Your task to perform on an android device: open app "Nova Launcher" (install if not already installed) Image 0: 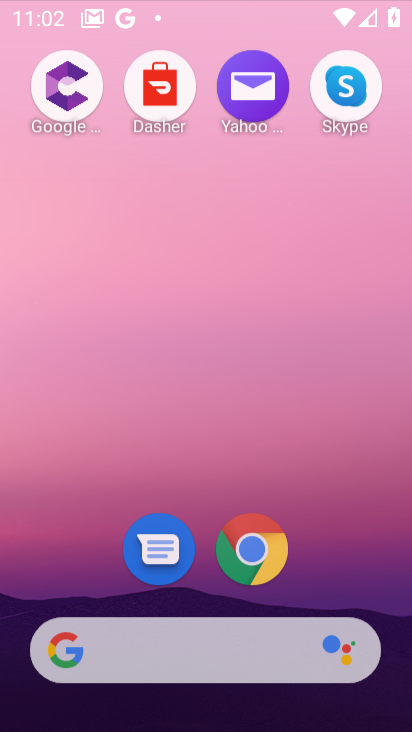
Step 0: click (137, 44)
Your task to perform on an android device: open app "Nova Launcher" (install if not already installed) Image 1: 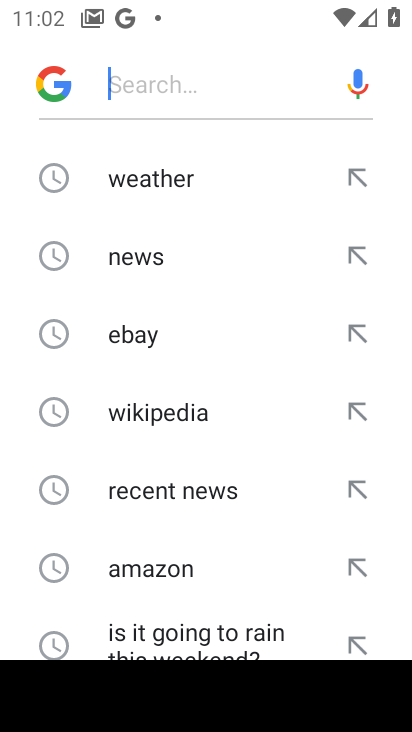
Step 1: press back button
Your task to perform on an android device: open app "Nova Launcher" (install if not already installed) Image 2: 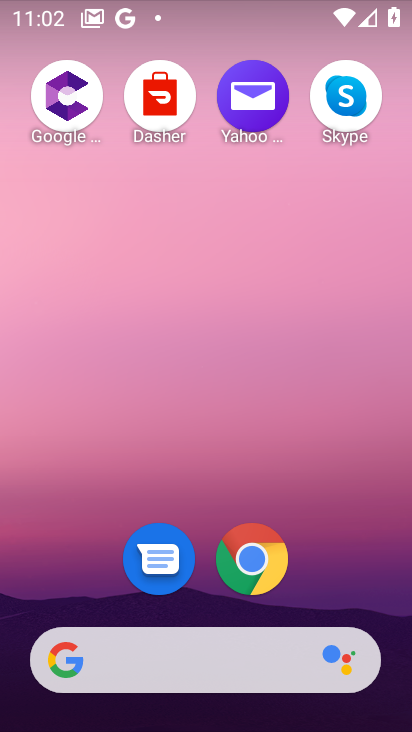
Step 2: drag from (78, 539) to (157, 10)
Your task to perform on an android device: open app "Nova Launcher" (install if not already installed) Image 3: 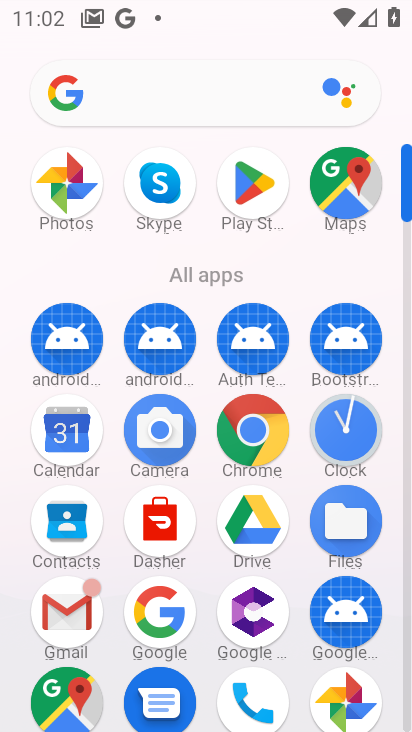
Step 3: click (261, 186)
Your task to perform on an android device: open app "Nova Launcher" (install if not already installed) Image 4: 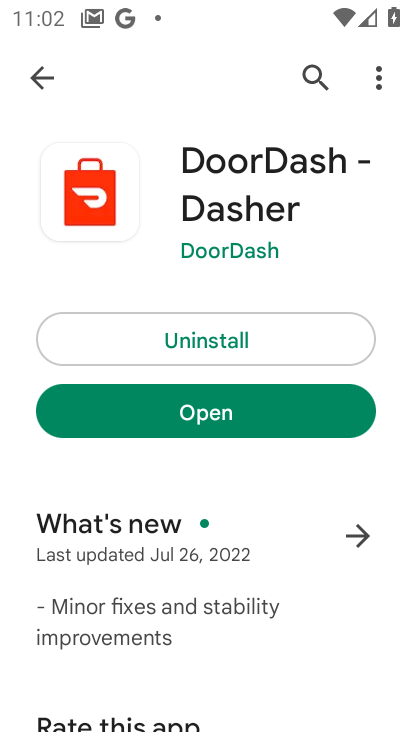
Step 4: click (306, 65)
Your task to perform on an android device: open app "Nova Launcher" (install if not already installed) Image 5: 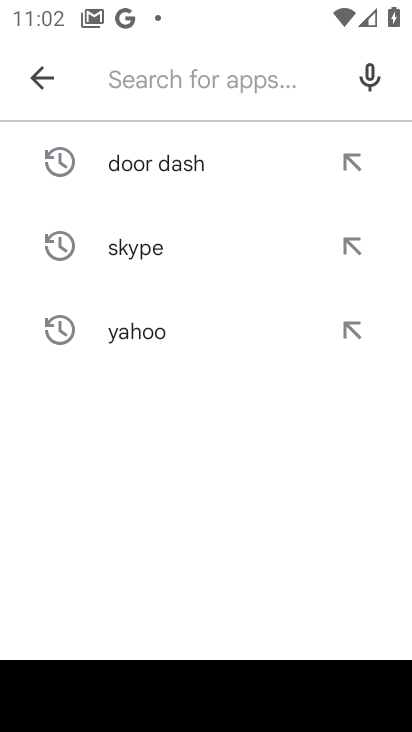
Step 5: click (205, 79)
Your task to perform on an android device: open app "Nova Launcher" (install if not already installed) Image 6: 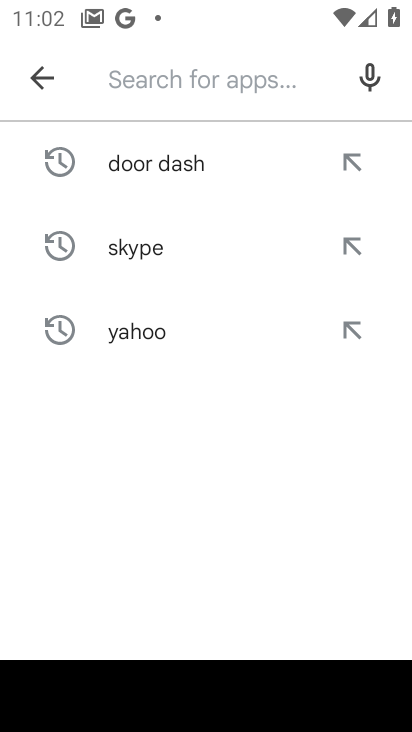
Step 6: type "nova launcher"
Your task to perform on an android device: open app "Nova Launcher" (install if not already installed) Image 7: 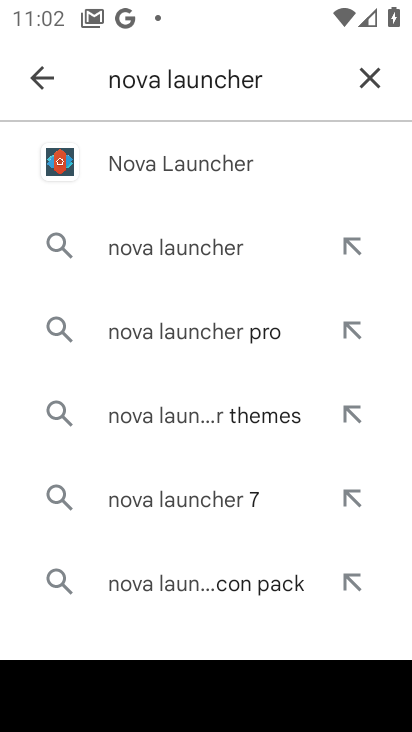
Step 7: click (140, 152)
Your task to perform on an android device: open app "Nova Launcher" (install if not already installed) Image 8: 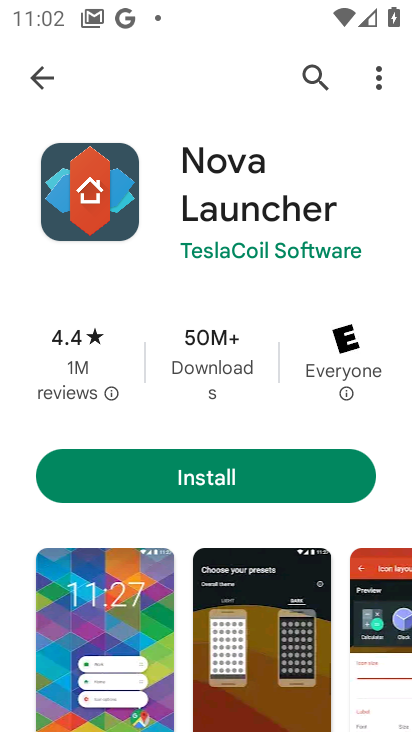
Step 8: click (169, 465)
Your task to perform on an android device: open app "Nova Launcher" (install if not already installed) Image 9: 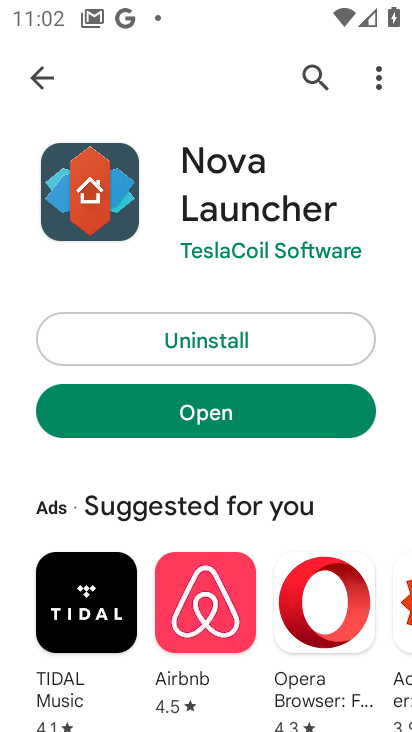
Step 9: click (210, 421)
Your task to perform on an android device: open app "Nova Launcher" (install if not already installed) Image 10: 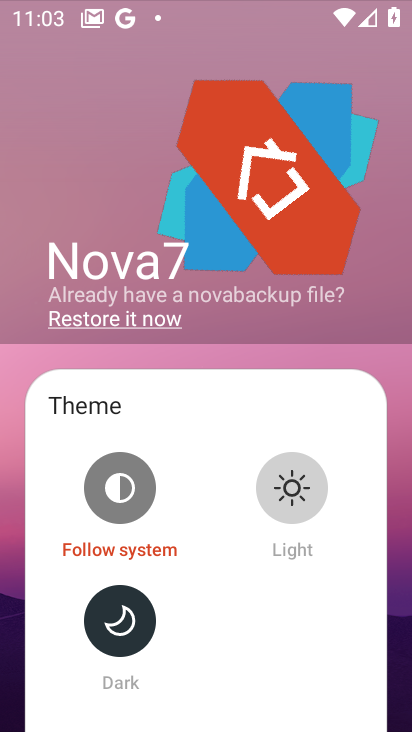
Step 10: task complete